Your task to perform on an android device: turn notification dots off Image 0: 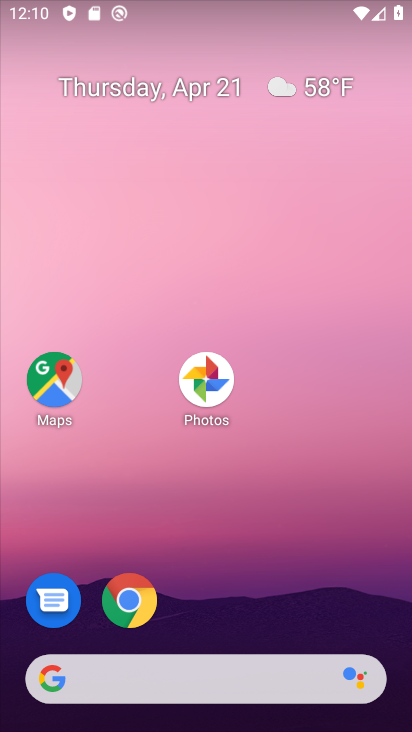
Step 0: drag from (223, 653) to (197, 57)
Your task to perform on an android device: turn notification dots off Image 1: 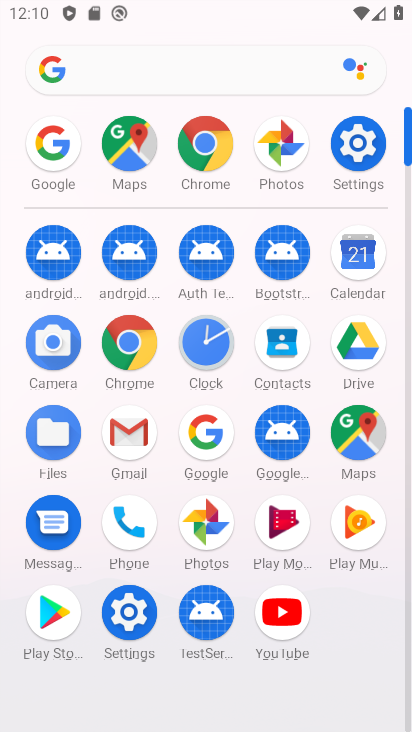
Step 1: click (340, 155)
Your task to perform on an android device: turn notification dots off Image 2: 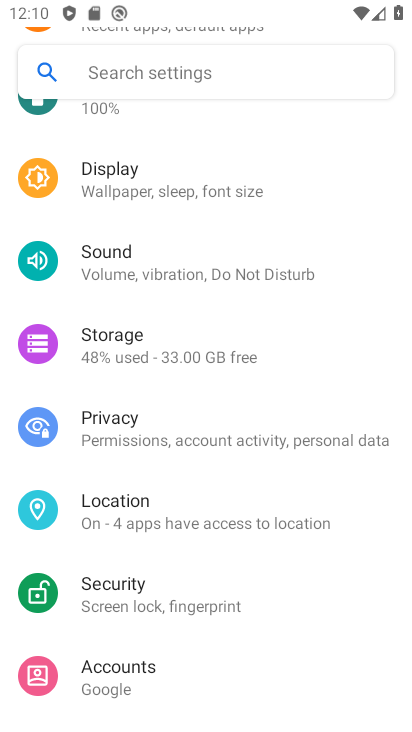
Step 2: drag from (225, 303) to (217, 637)
Your task to perform on an android device: turn notification dots off Image 3: 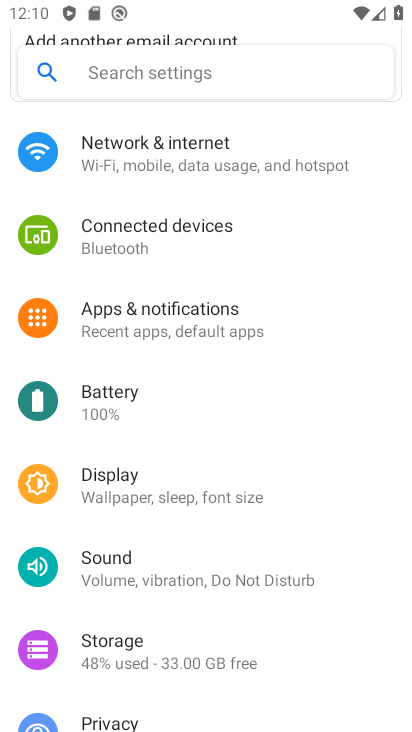
Step 3: click (217, 338)
Your task to perform on an android device: turn notification dots off Image 4: 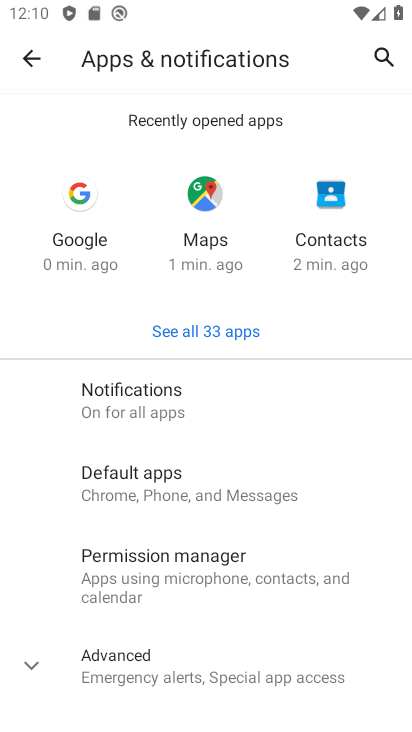
Step 4: click (214, 416)
Your task to perform on an android device: turn notification dots off Image 5: 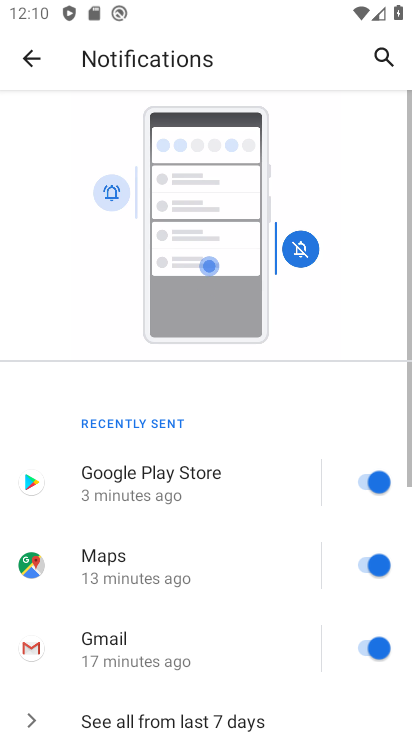
Step 5: drag from (205, 558) to (205, 223)
Your task to perform on an android device: turn notification dots off Image 6: 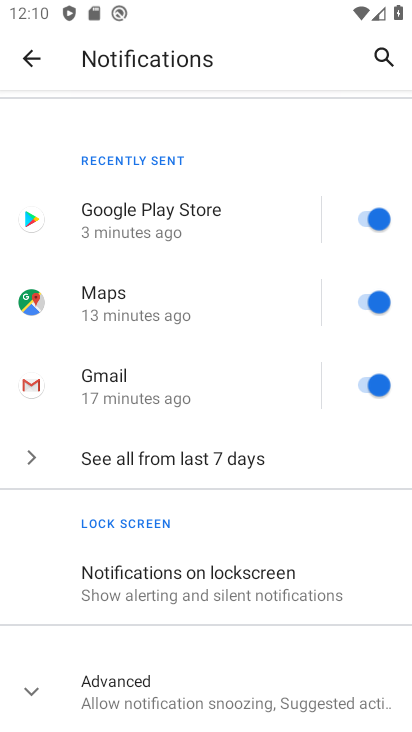
Step 6: click (221, 699)
Your task to perform on an android device: turn notification dots off Image 7: 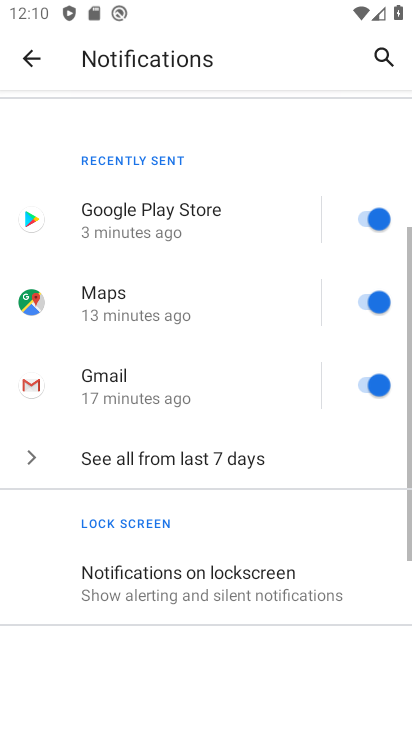
Step 7: task complete